Your task to perform on an android device: open chrome privacy settings Image 0: 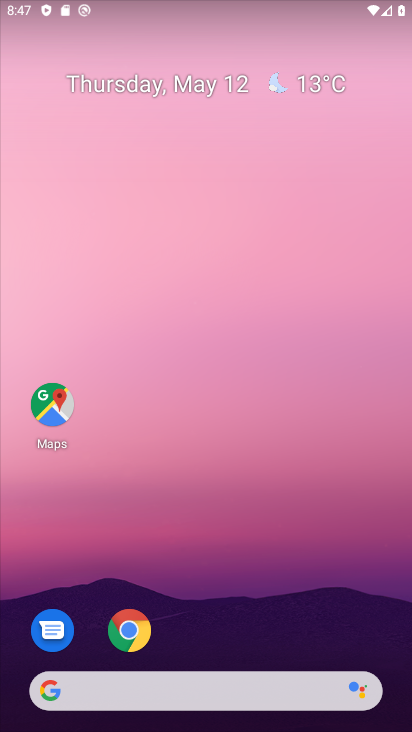
Step 0: click (124, 639)
Your task to perform on an android device: open chrome privacy settings Image 1: 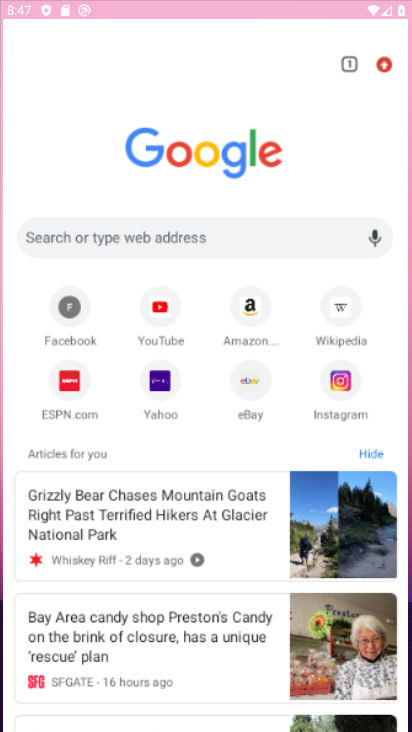
Step 1: click (124, 639)
Your task to perform on an android device: open chrome privacy settings Image 2: 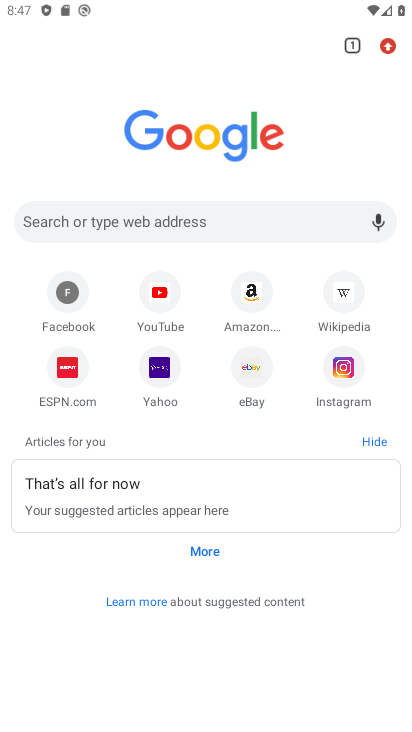
Step 2: drag from (382, 40) to (244, 428)
Your task to perform on an android device: open chrome privacy settings Image 3: 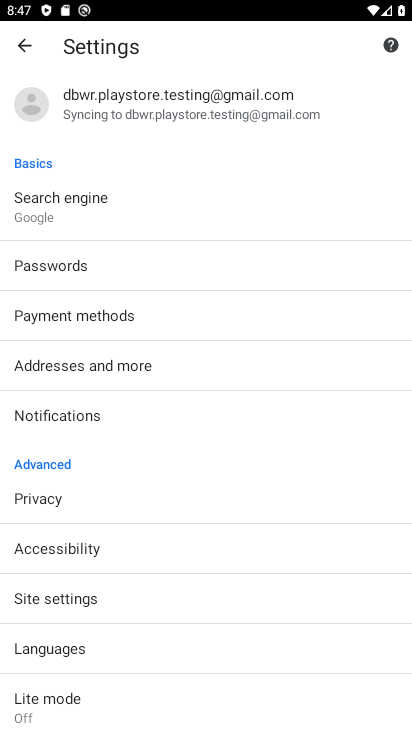
Step 3: click (103, 502)
Your task to perform on an android device: open chrome privacy settings Image 4: 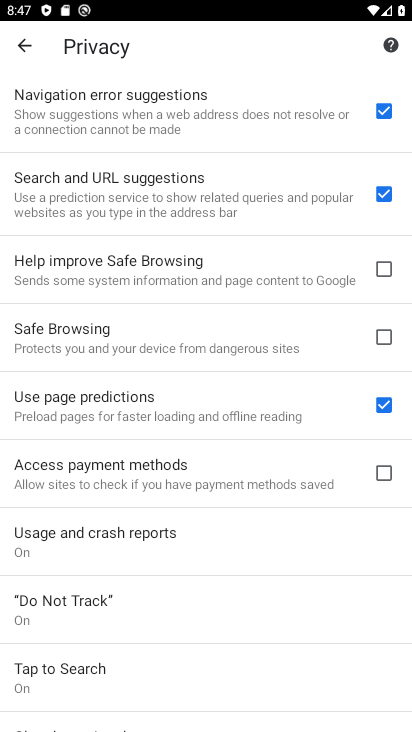
Step 4: task complete